Your task to perform on an android device: Open Amazon Image 0: 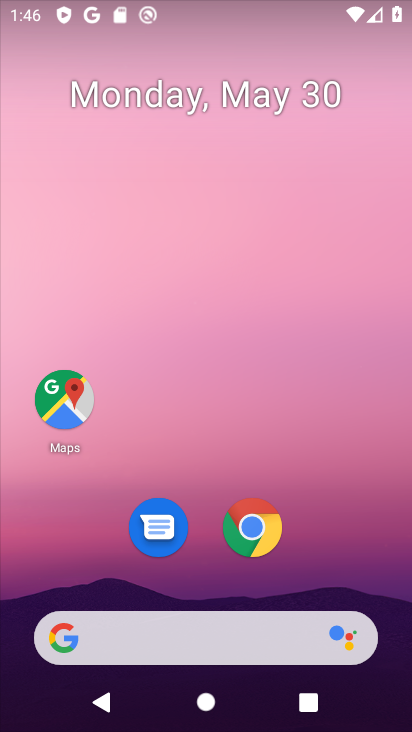
Step 0: drag from (191, 585) to (281, 209)
Your task to perform on an android device: Open Amazon Image 1: 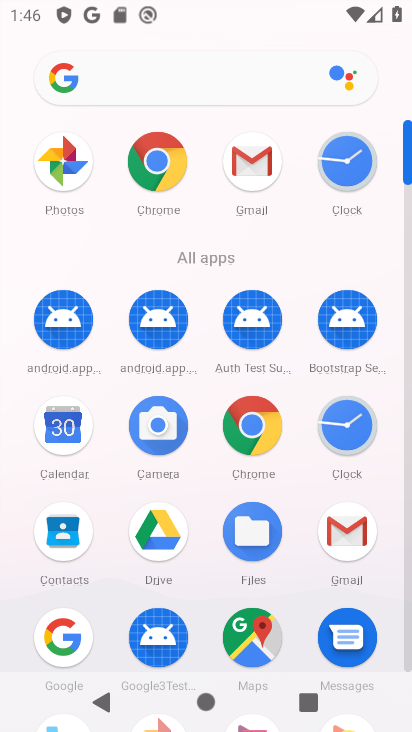
Step 1: click (261, 438)
Your task to perform on an android device: Open Amazon Image 2: 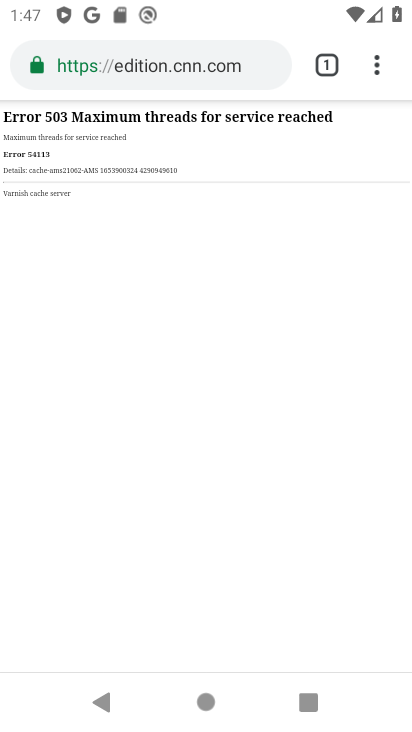
Step 2: click (333, 70)
Your task to perform on an android device: Open Amazon Image 3: 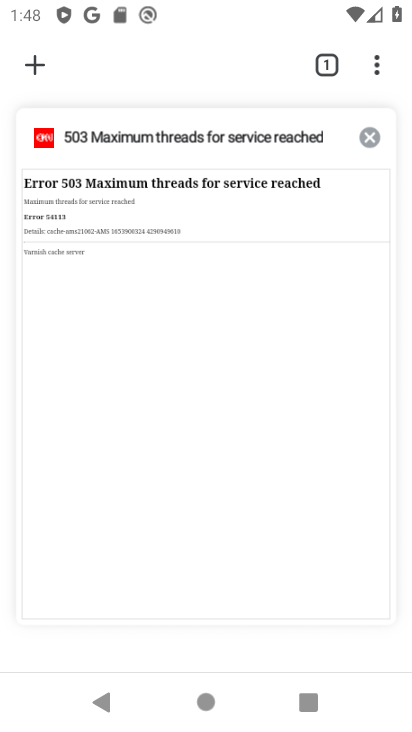
Step 3: click (33, 71)
Your task to perform on an android device: Open Amazon Image 4: 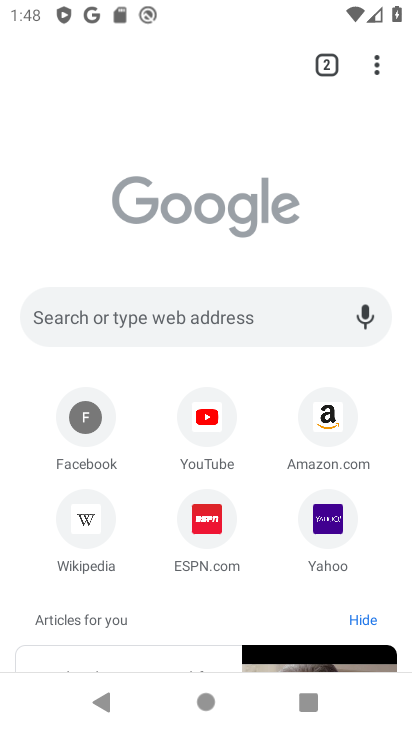
Step 4: click (336, 431)
Your task to perform on an android device: Open Amazon Image 5: 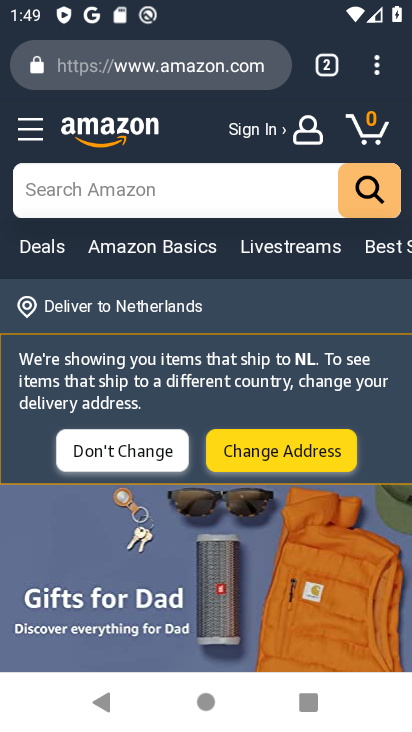
Step 5: task complete